Your task to perform on an android device: turn on translation in the chrome app Image 0: 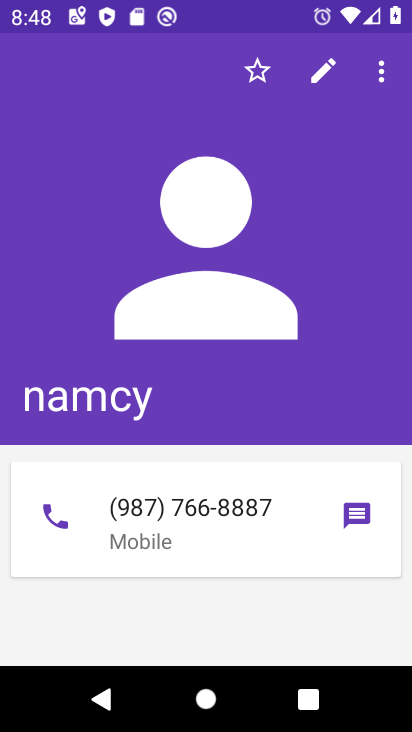
Step 0: press home button
Your task to perform on an android device: turn on translation in the chrome app Image 1: 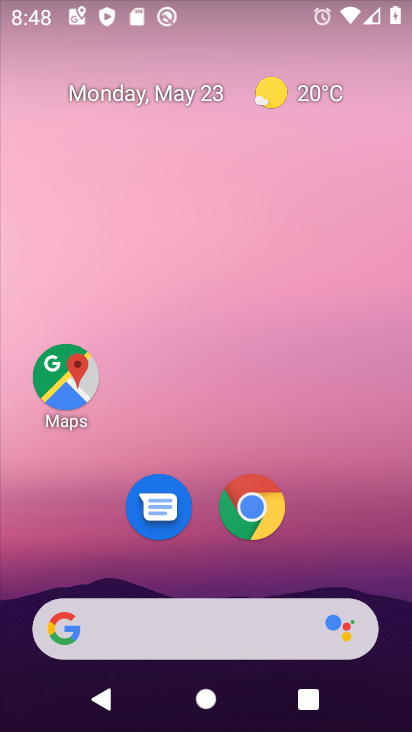
Step 1: click (254, 509)
Your task to perform on an android device: turn on translation in the chrome app Image 2: 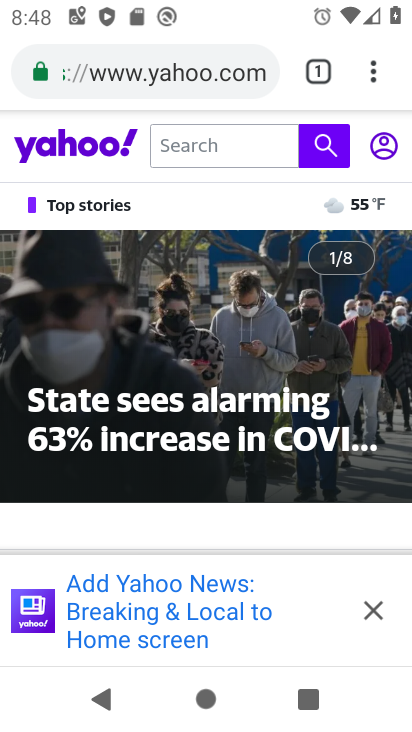
Step 2: click (375, 78)
Your task to perform on an android device: turn on translation in the chrome app Image 3: 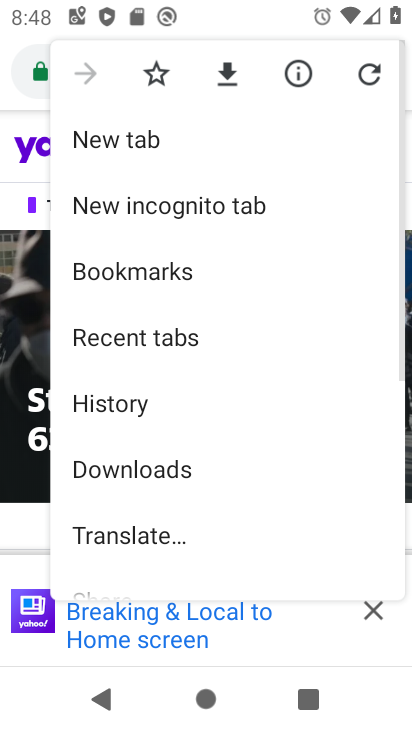
Step 3: drag from (287, 504) to (283, 173)
Your task to perform on an android device: turn on translation in the chrome app Image 4: 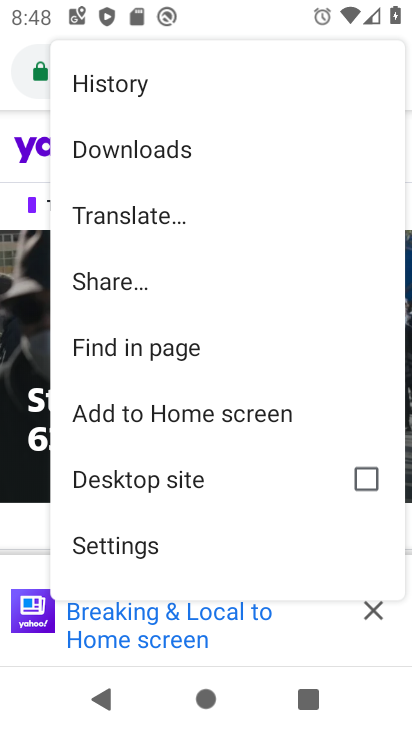
Step 4: click (114, 544)
Your task to perform on an android device: turn on translation in the chrome app Image 5: 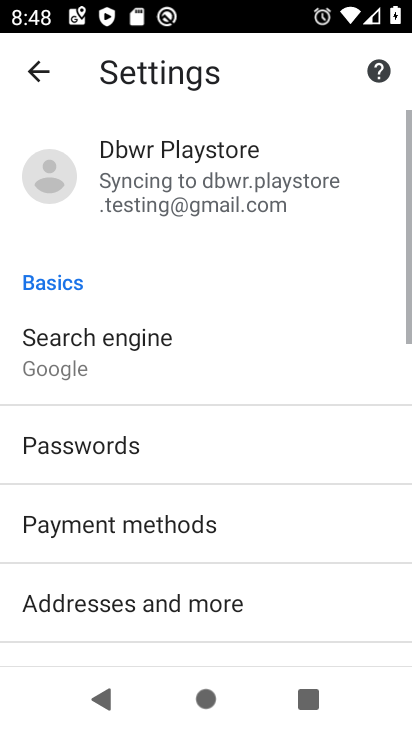
Step 5: drag from (213, 570) to (229, 82)
Your task to perform on an android device: turn on translation in the chrome app Image 6: 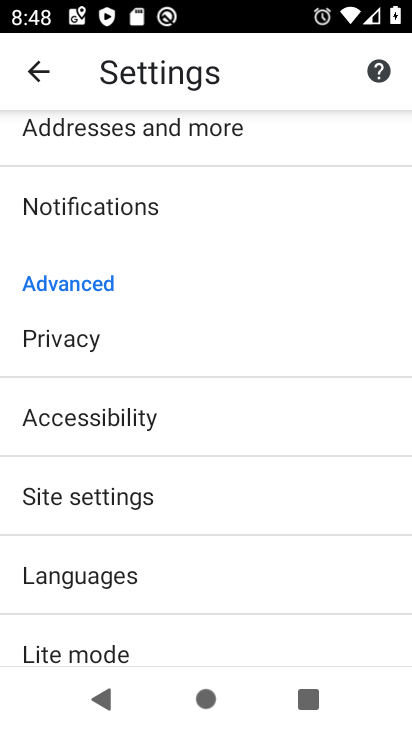
Step 6: click (121, 576)
Your task to perform on an android device: turn on translation in the chrome app Image 7: 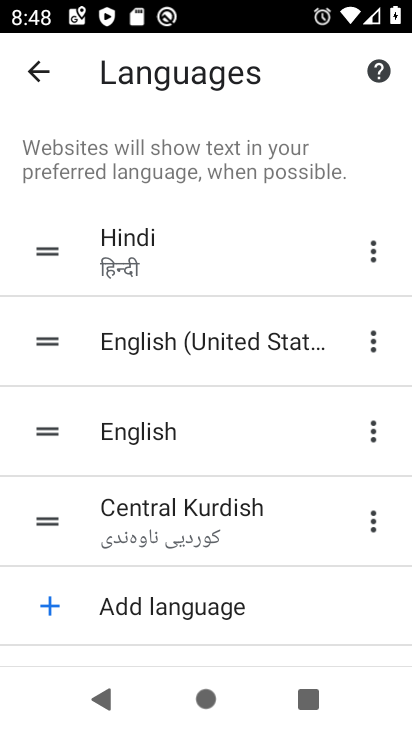
Step 7: drag from (221, 351) to (219, 211)
Your task to perform on an android device: turn on translation in the chrome app Image 8: 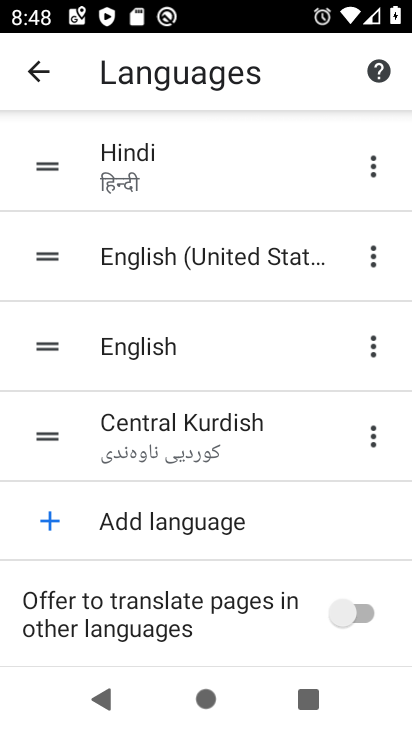
Step 8: click (349, 617)
Your task to perform on an android device: turn on translation in the chrome app Image 9: 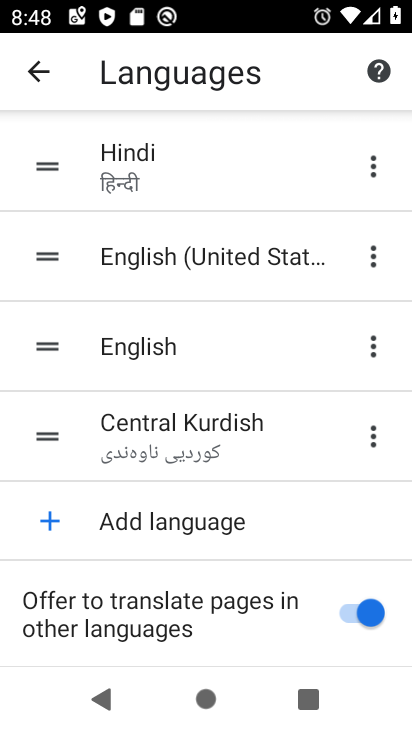
Step 9: task complete